Your task to perform on an android device: toggle data saver in the chrome app Image 0: 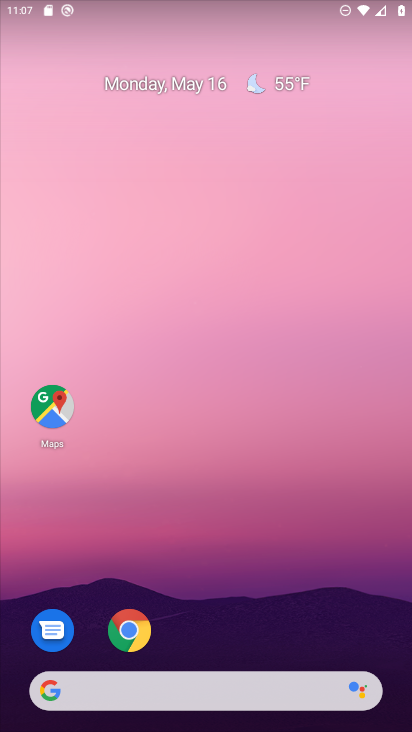
Step 0: click (130, 626)
Your task to perform on an android device: toggle data saver in the chrome app Image 1: 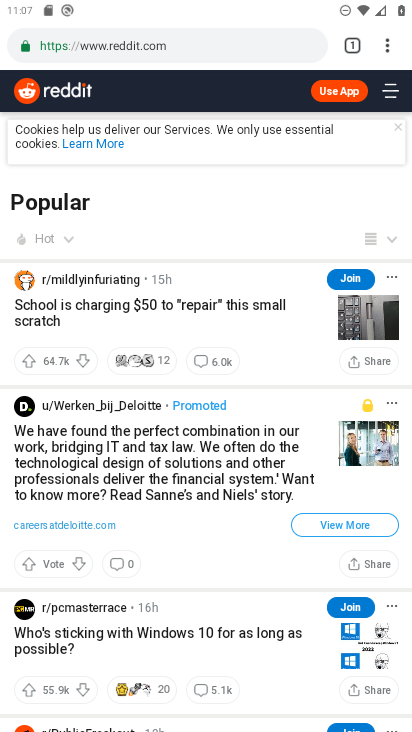
Step 1: click (387, 44)
Your task to perform on an android device: toggle data saver in the chrome app Image 2: 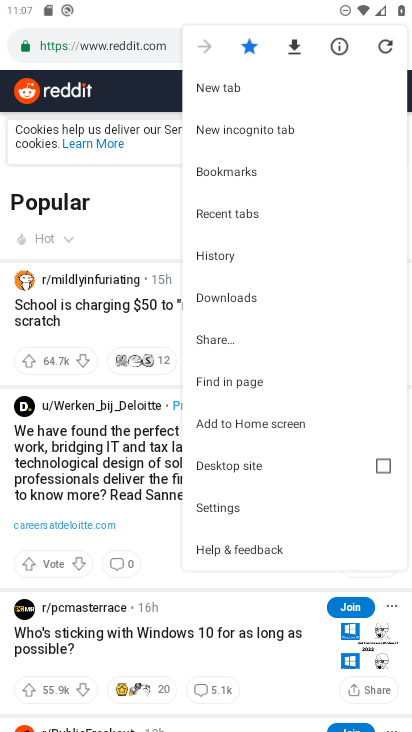
Step 2: click (212, 504)
Your task to perform on an android device: toggle data saver in the chrome app Image 3: 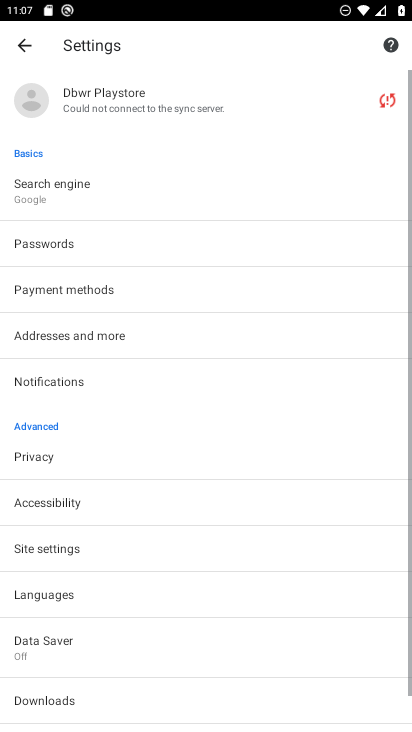
Step 3: drag from (174, 637) to (205, 381)
Your task to perform on an android device: toggle data saver in the chrome app Image 4: 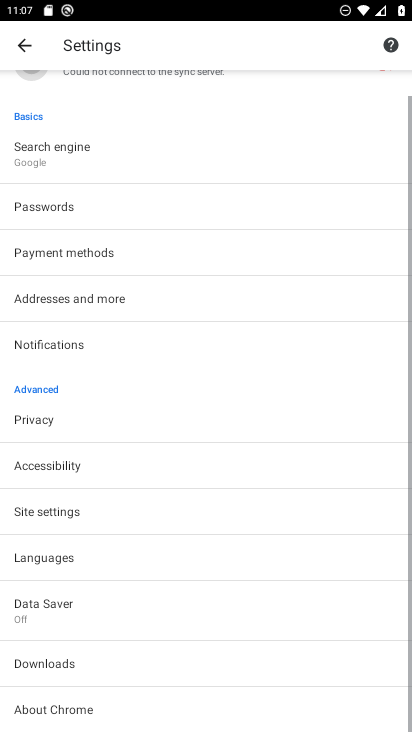
Step 4: click (100, 597)
Your task to perform on an android device: toggle data saver in the chrome app Image 5: 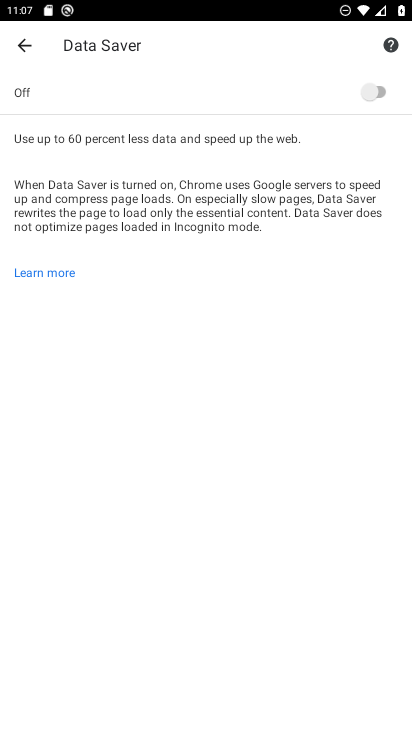
Step 5: click (380, 85)
Your task to perform on an android device: toggle data saver in the chrome app Image 6: 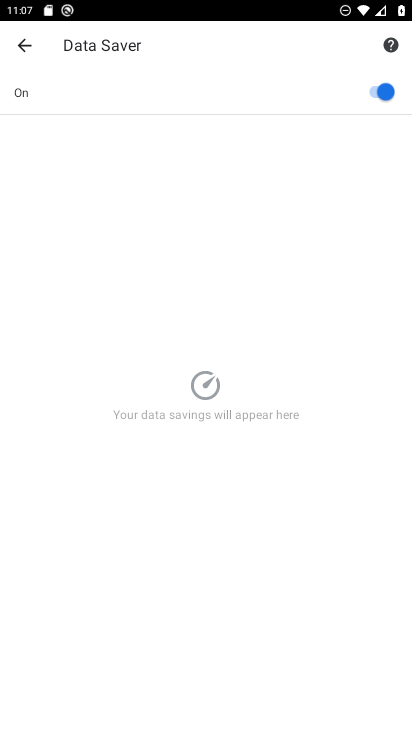
Step 6: task complete